Your task to perform on an android device: Open the calendar app, open the side menu, and click the "Day" option Image 0: 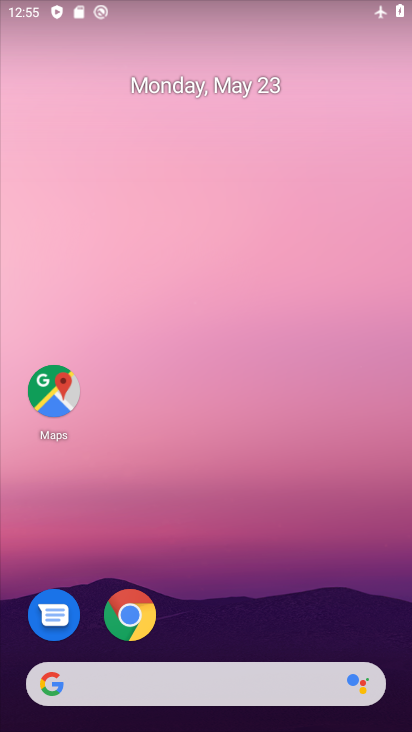
Step 0: drag from (197, 649) to (251, 167)
Your task to perform on an android device: Open the calendar app, open the side menu, and click the "Day" option Image 1: 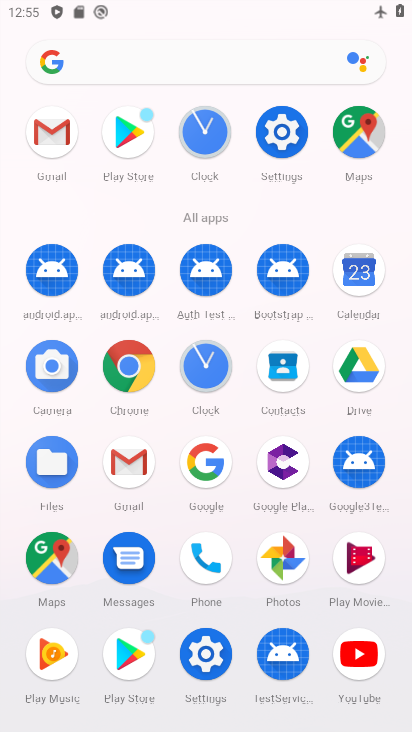
Step 1: click (352, 283)
Your task to perform on an android device: Open the calendar app, open the side menu, and click the "Day" option Image 2: 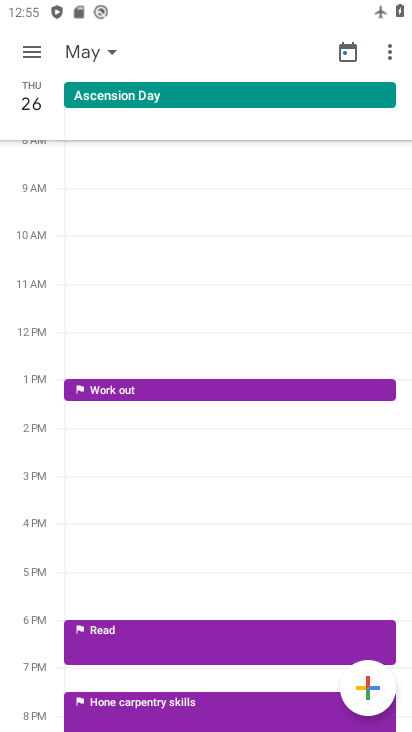
Step 2: click (32, 41)
Your task to perform on an android device: Open the calendar app, open the side menu, and click the "Day" option Image 3: 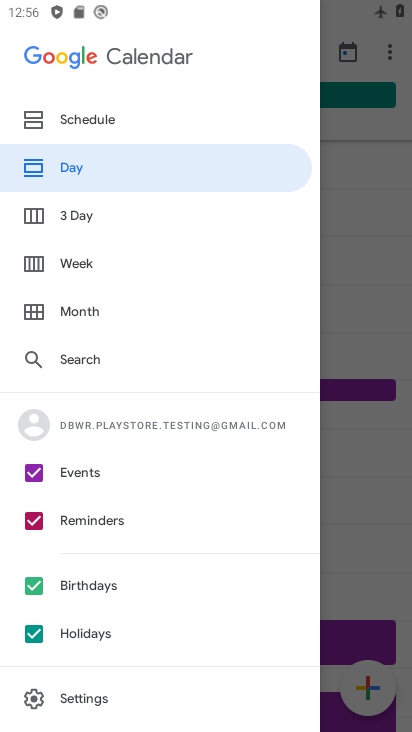
Step 3: click (75, 158)
Your task to perform on an android device: Open the calendar app, open the side menu, and click the "Day" option Image 4: 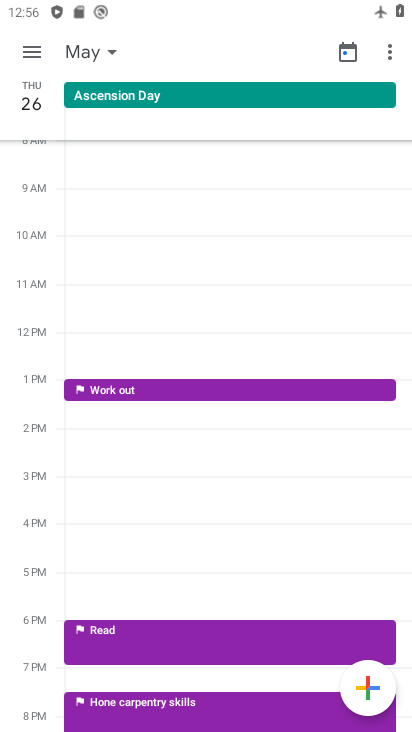
Step 4: task complete